Your task to perform on an android device: open a bookmark in the chrome app Image 0: 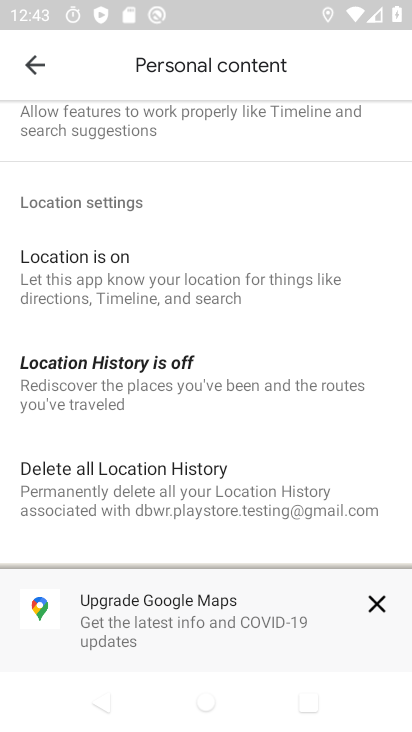
Step 0: press back button
Your task to perform on an android device: open a bookmark in the chrome app Image 1: 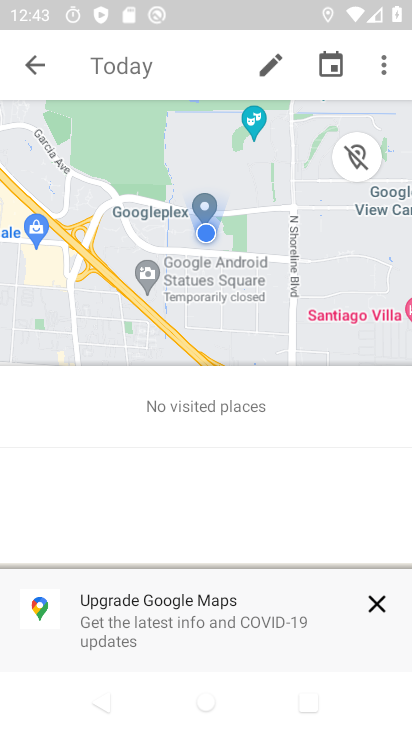
Step 1: press back button
Your task to perform on an android device: open a bookmark in the chrome app Image 2: 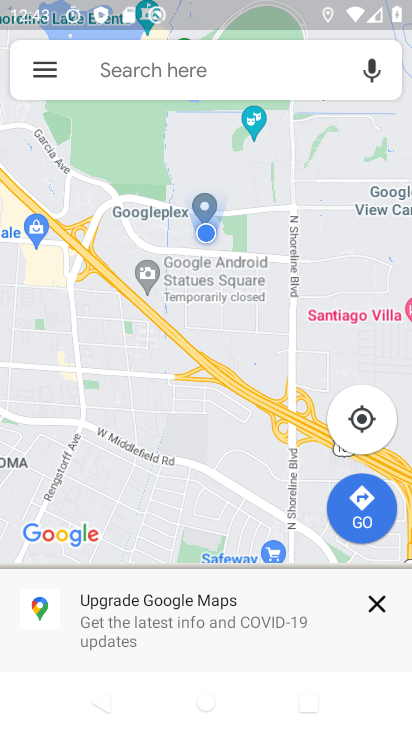
Step 2: press home button
Your task to perform on an android device: open a bookmark in the chrome app Image 3: 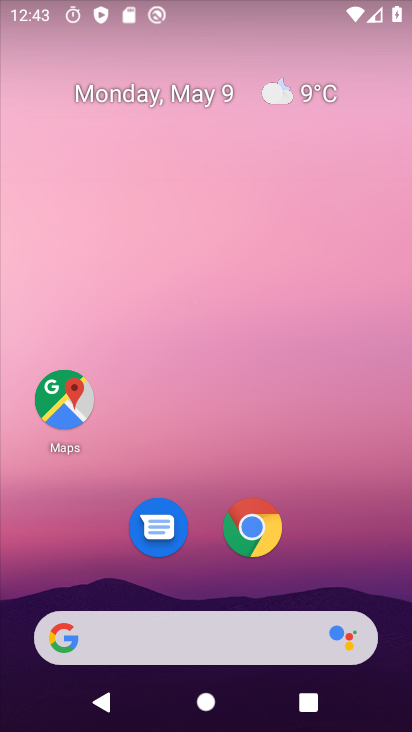
Step 3: click (257, 526)
Your task to perform on an android device: open a bookmark in the chrome app Image 4: 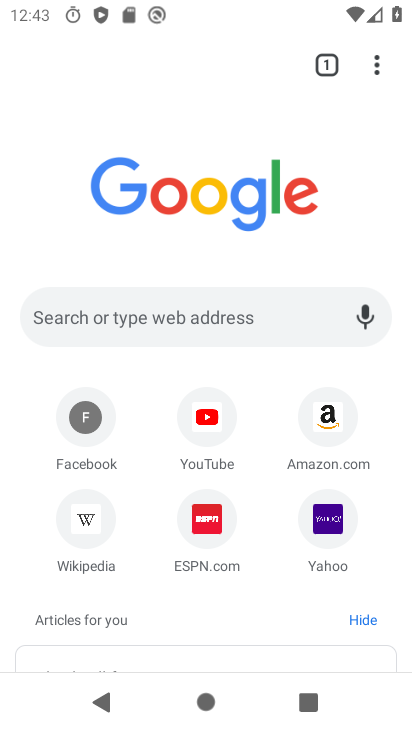
Step 4: click (374, 64)
Your task to perform on an android device: open a bookmark in the chrome app Image 5: 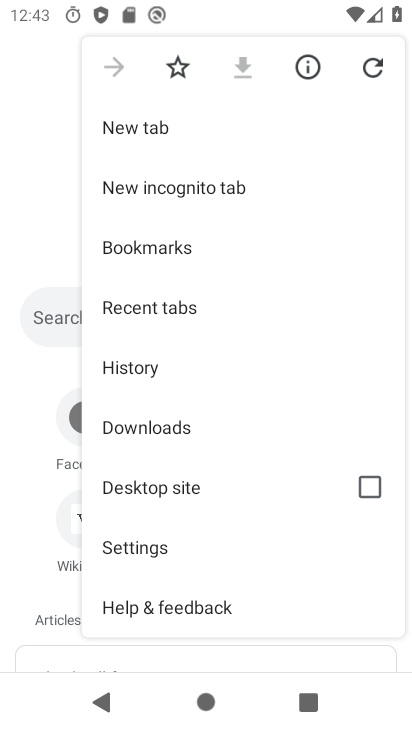
Step 5: click (147, 240)
Your task to perform on an android device: open a bookmark in the chrome app Image 6: 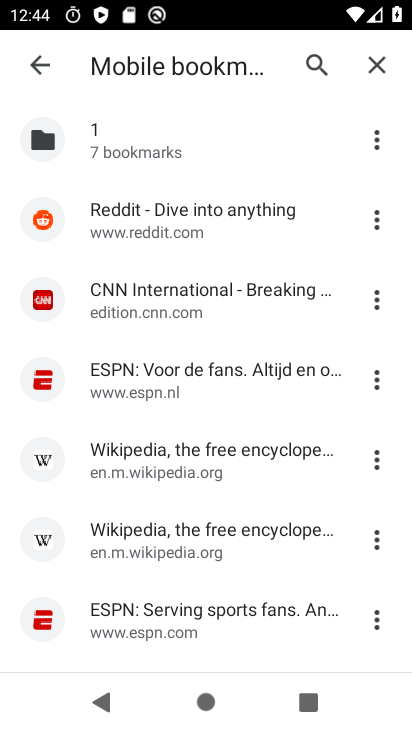
Step 6: click (150, 298)
Your task to perform on an android device: open a bookmark in the chrome app Image 7: 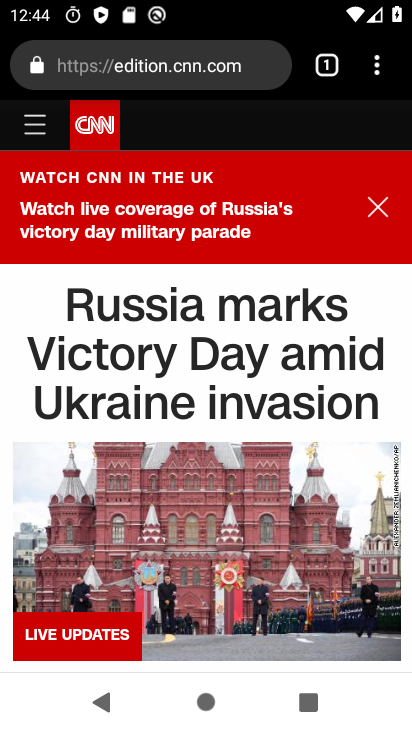
Step 7: task complete